Your task to perform on an android device: Open Wikipedia Image 0: 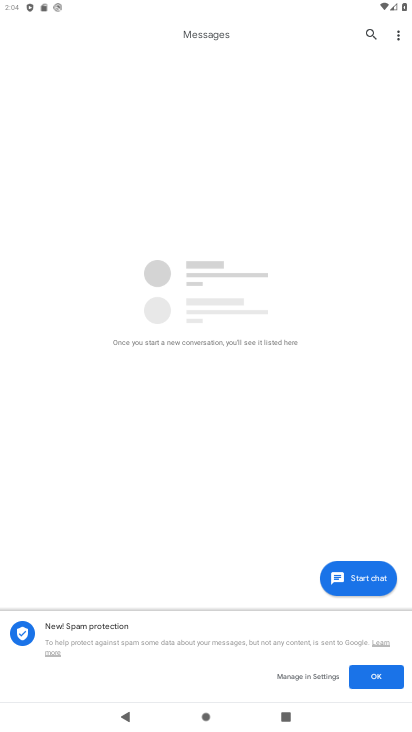
Step 0: press home button
Your task to perform on an android device: Open Wikipedia Image 1: 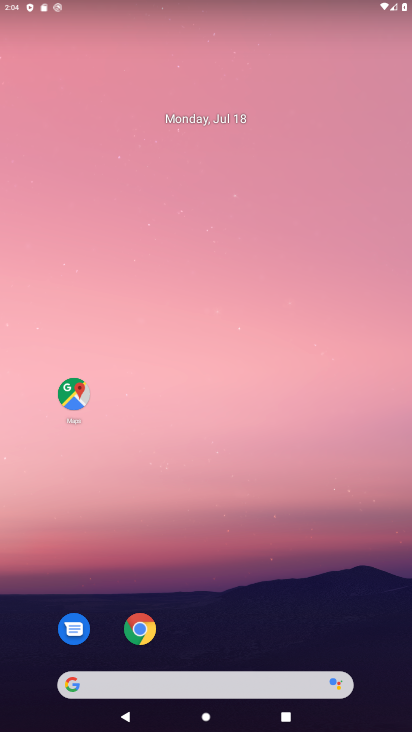
Step 1: click (150, 629)
Your task to perform on an android device: Open Wikipedia Image 2: 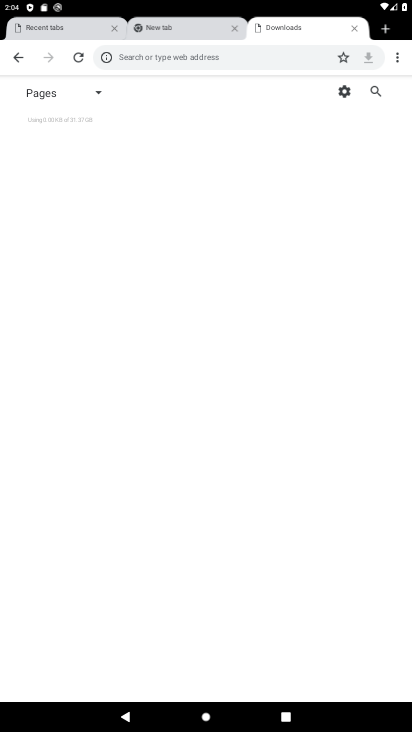
Step 2: click (384, 32)
Your task to perform on an android device: Open Wikipedia Image 3: 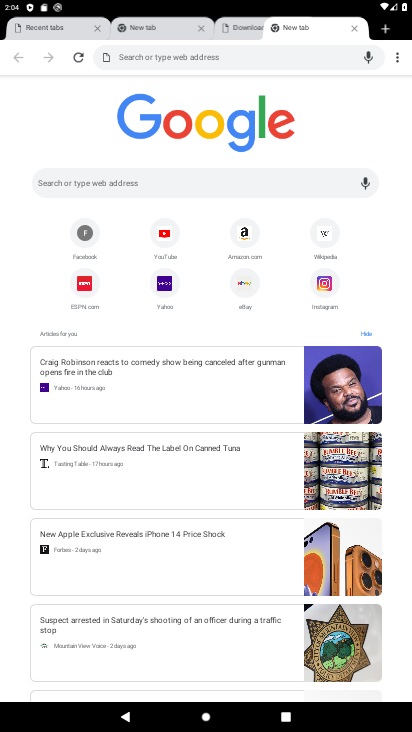
Step 3: click (322, 235)
Your task to perform on an android device: Open Wikipedia Image 4: 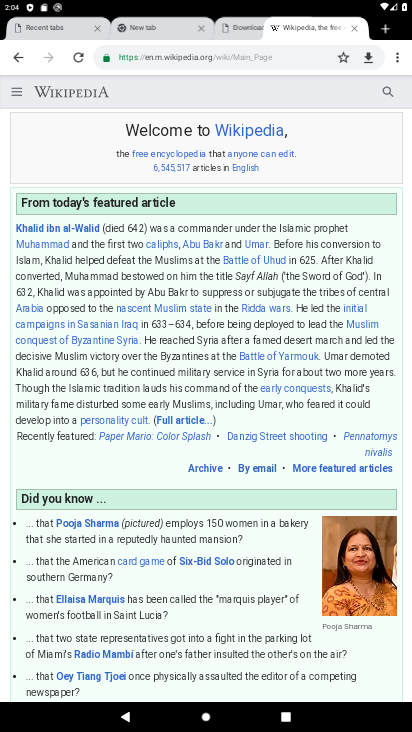
Step 4: task complete